Your task to perform on an android device: Turn on the flashlight Image 0: 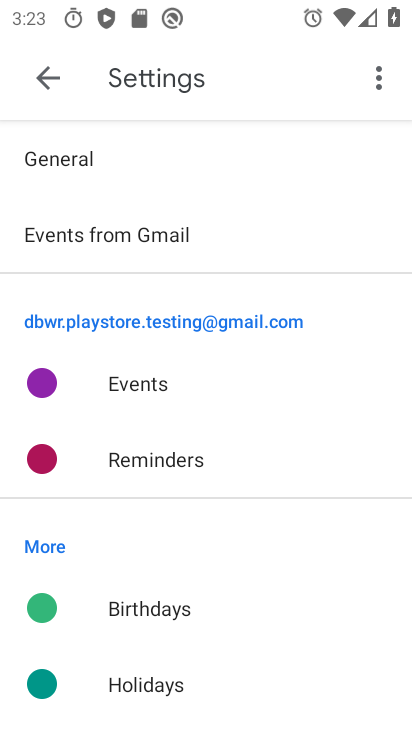
Step 0: press home button
Your task to perform on an android device: Turn on the flashlight Image 1: 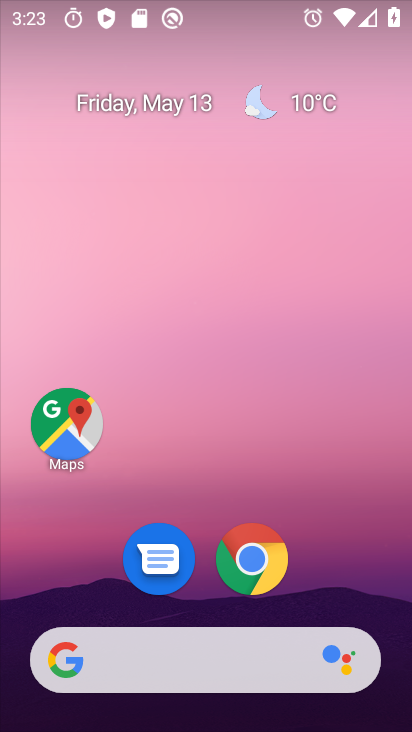
Step 1: drag from (218, 612) to (241, 221)
Your task to perform on an android device: Turn on the flashlight Image 2: 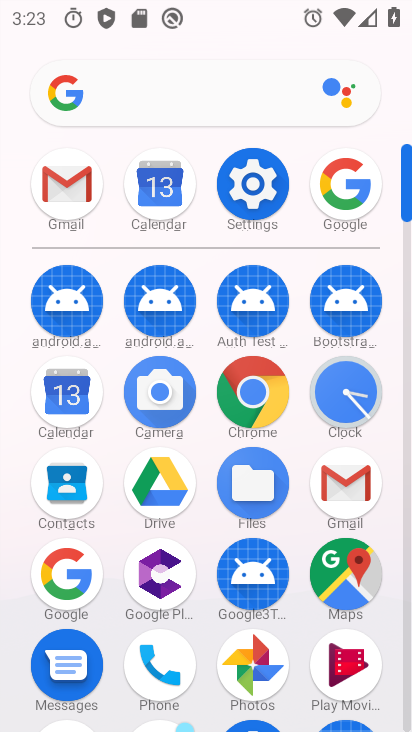
Step 2: click (246, 170)
Your task to perform on an android device: Turn on the flashlight Image 3: 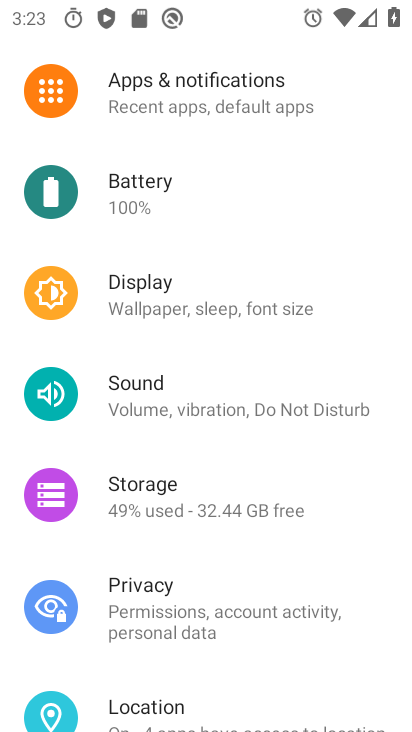
Step 3: task complete